Your task to perform on an android device: Show me popular games on the Play Store Image 0: 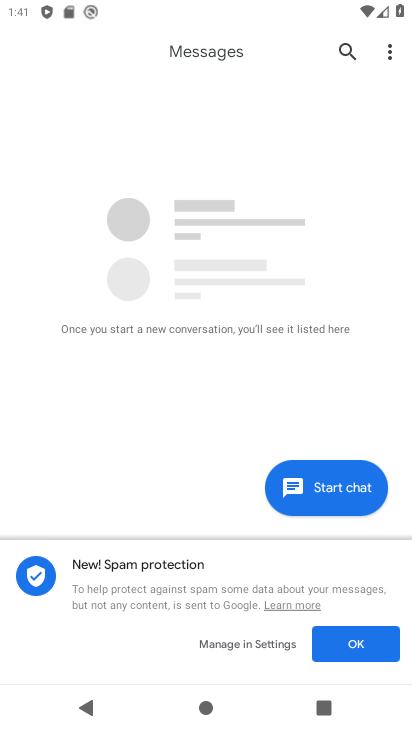
Step 0: press home button
Your task to perform on an android device: Show me popular games on the Play Store Image 1: 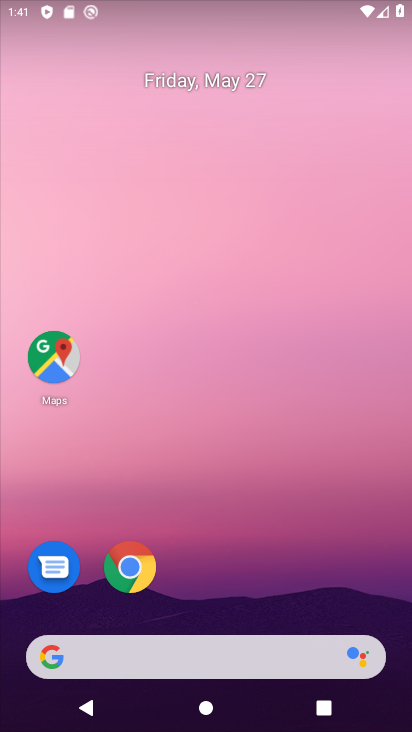
Step 1: drag from (234, 605) to (215, 163)
Your task to perform on an android device: Show me popular games on the Play Store Image 2: 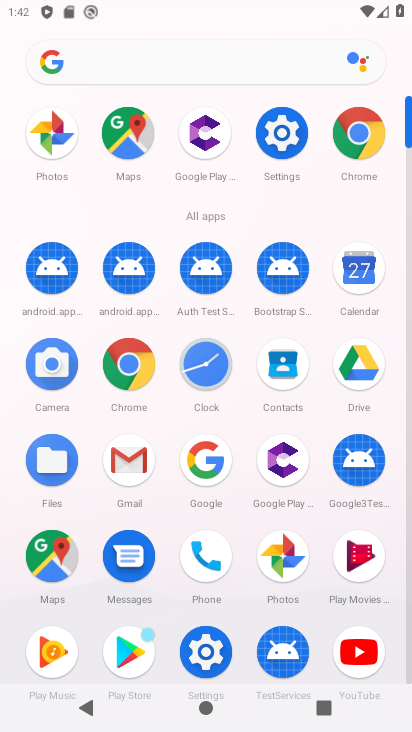
Step 2: click (137, 665)
Your task to perform on an android device: Show me popular games on the Play Store Image 3: 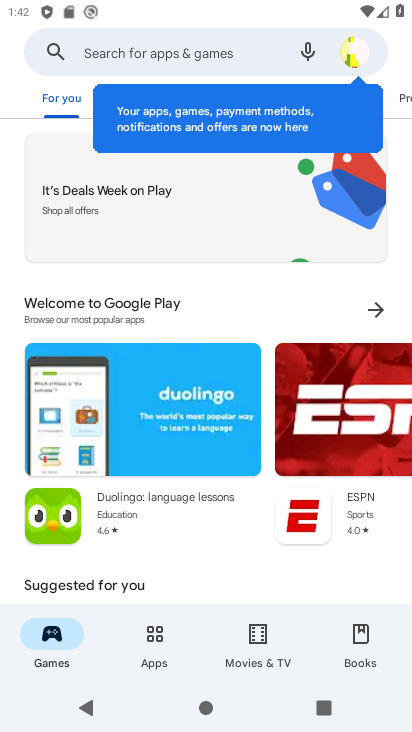
Step 3: click (166, 323)
Your task to perform on an android device: Show me popular games on the Play Store Image 4: 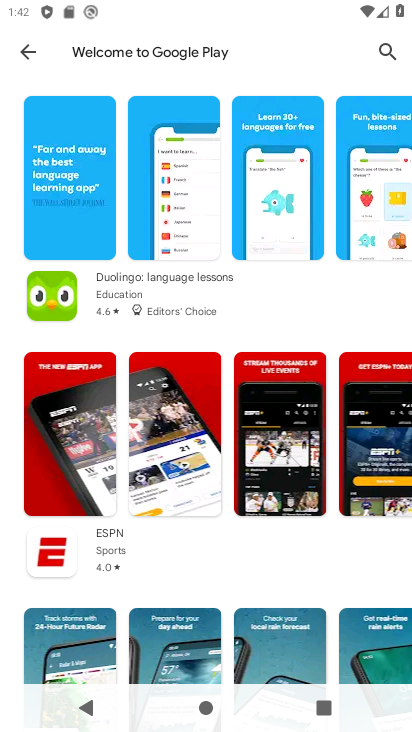
Step 4: task complete